Your task to perform on an android device: check battery use Image 0: 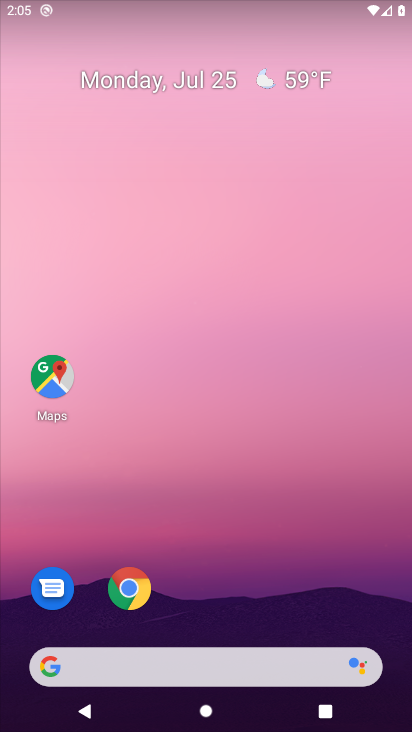
Step 0: drag from (316, 628) to (312, 148)
Your task to perform on an android device: check battery use Image 1: 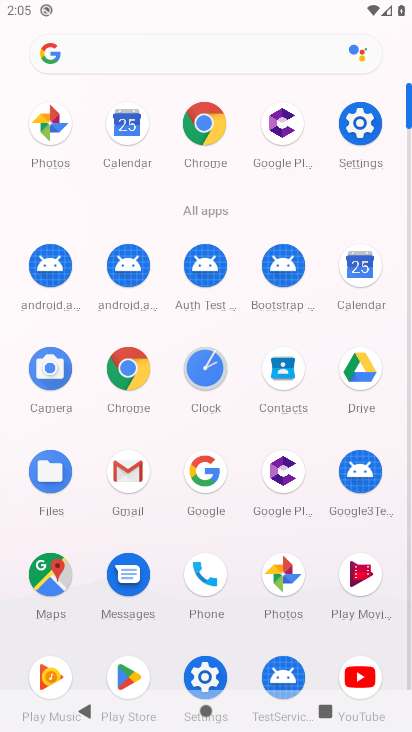
Step 1: click (371, 139)
Your task to perform on an android device: check battery use Image 2: 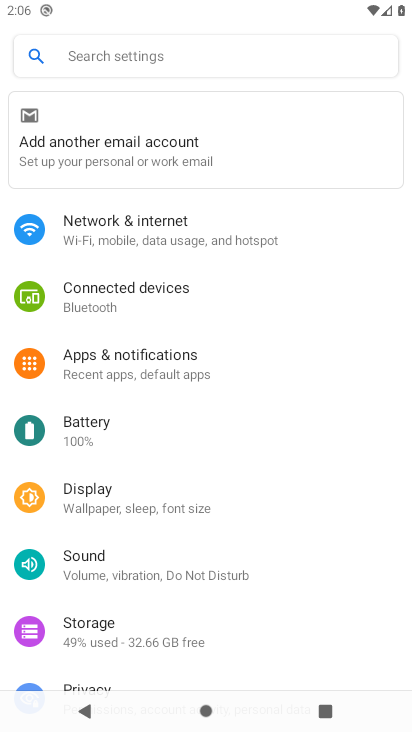
Step 2: click (138, 431)
Your task to perform on an android device: check battery use Image 3: 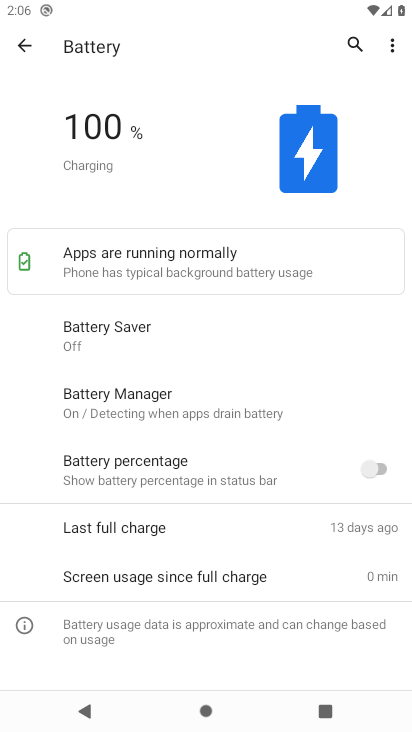
Step 3: click (393, 47)
Your task to perform on an android device: check battery use Image 4: 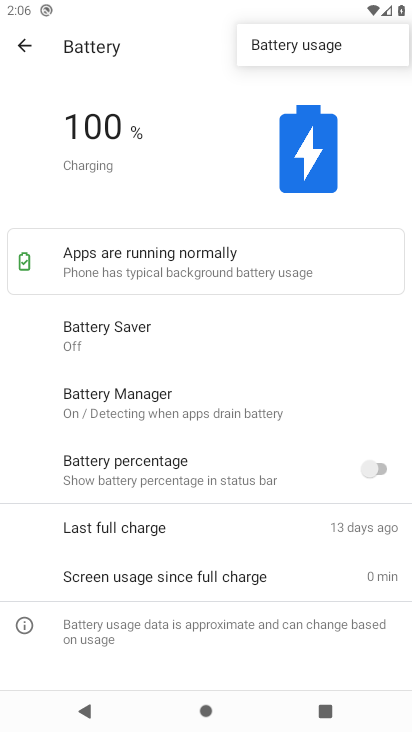
Step 4: click (339, 46)
Your task to perform on an android device: check battery use Image 5: 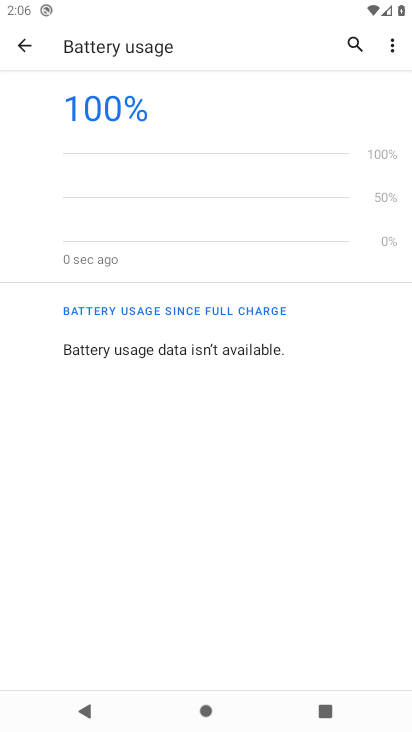
Step 5: task complete